Your task to perform on an android device: visit the assistant section in the google photos Image 0: 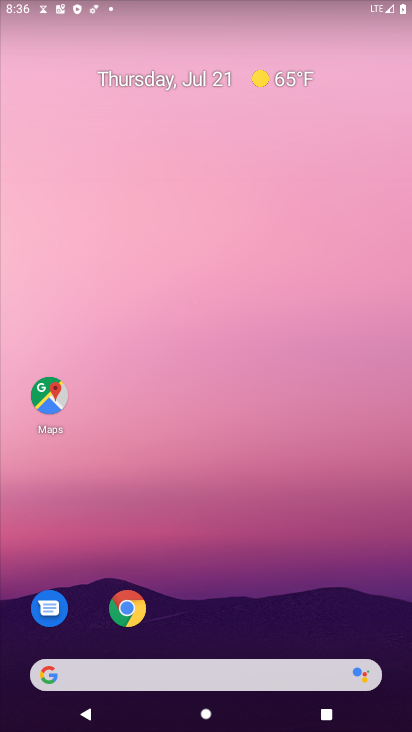
Step 0: drag from (167, 667) to (276, 188)
Your task to perform on an android device: visit the assistant section in the google photos Image 1: 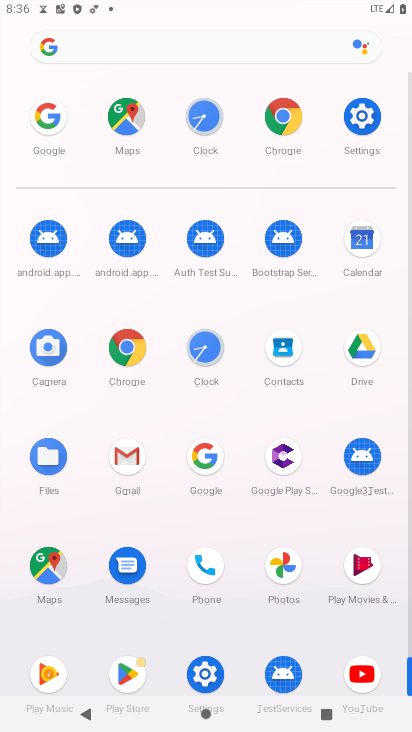
Step 1: click (284, 565)
Your task to perform on an android device: visit the assistant section in the google photos Image 2: 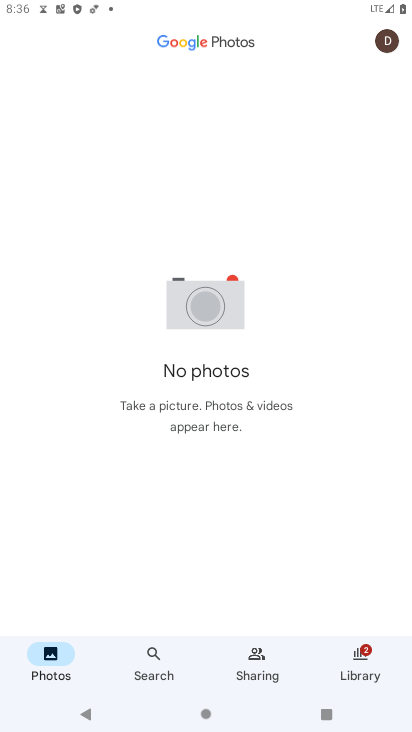
Step 2: click (156, 665)
Your task to perform on an android device: visit the assistant section in the google photos Image 3: 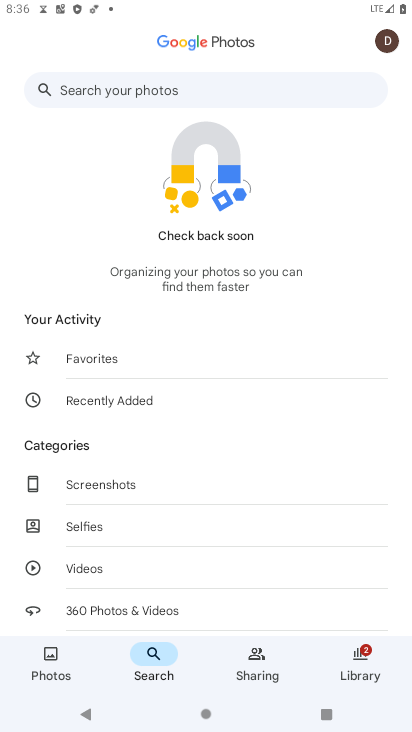
Step 3: click (262, 659)
Your task to perform on an android device: visit the assistant section in the google photos Image 4: 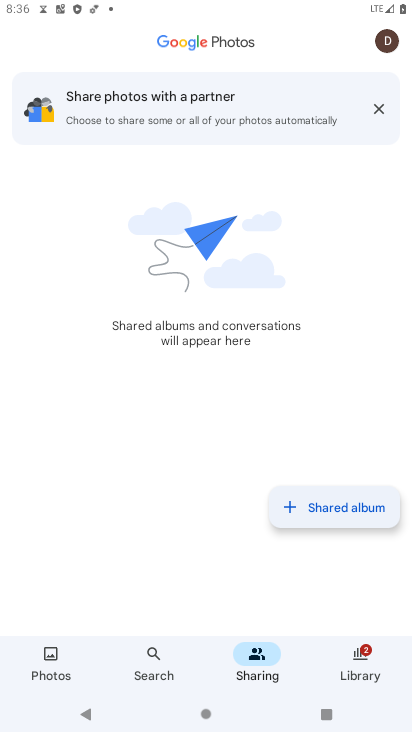
Step 4: click (159, 667)
Your task to perform on an android device: visit the assistant section in the google photos Image 5: 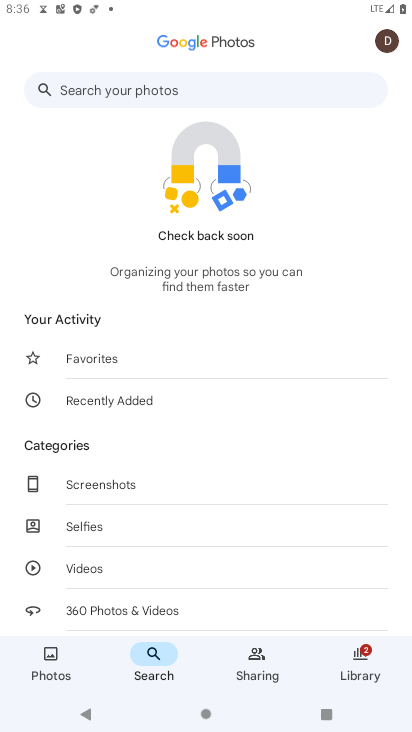
Step 5: click (57, 668)
Your task to perform on an android device: visit the assistant section in the google photos Image 6: 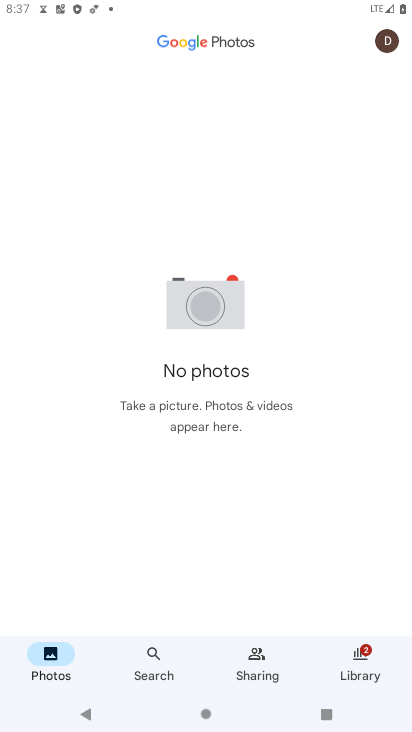
Step 6: click (361, 652)
Your task to perform on an android device: visit the assistant section in the google photos Image 7: 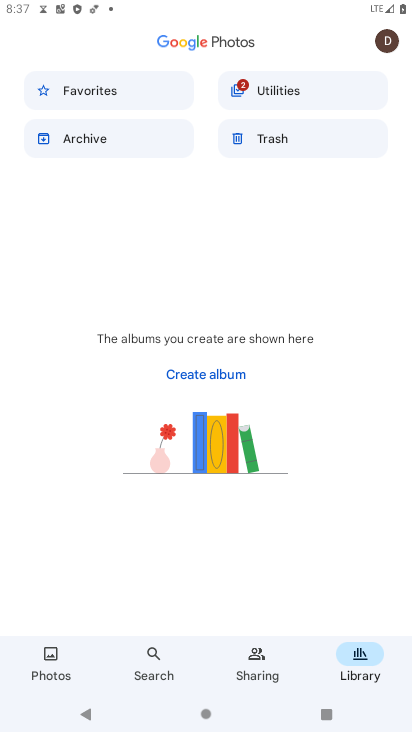
Step 7: click (94, 131)
Your task to perform on an android device: visit the assistant section in the google photos Image 8: 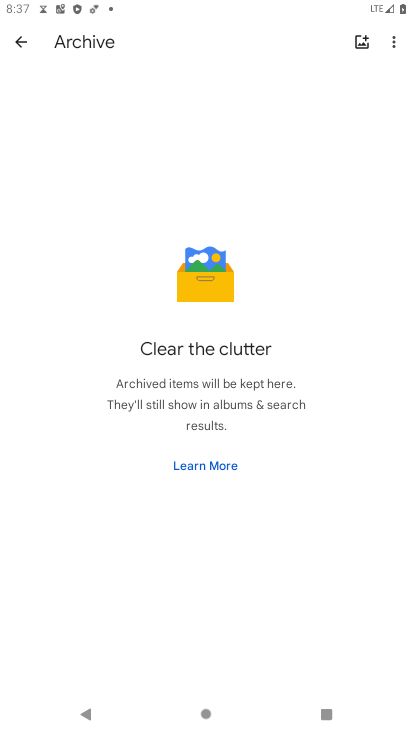
Step 8: click (66, 32)
Your task to perform on an android device: visit the assistant section in the google photos Image 9: 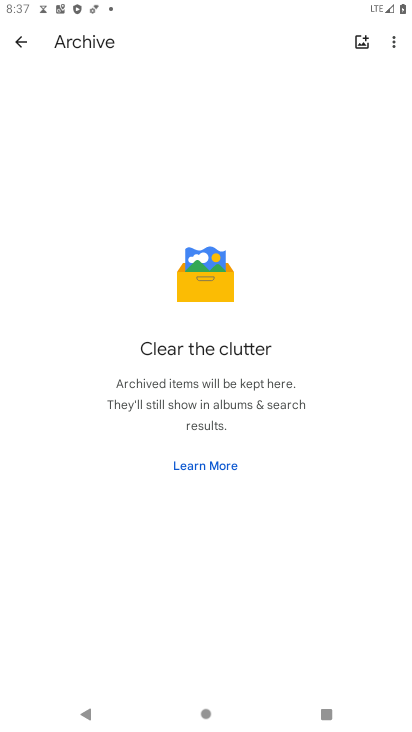
Step 9: click (19, 36)
Your task to perform on an android device: visit the assistant section in the google photos Image 10: 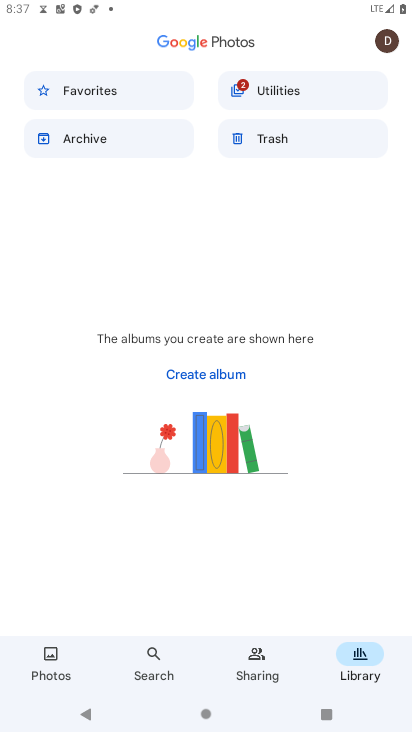
Step 10: click (205, 442)
Your task to perform on an android device: visit the assistant section in the google photos Image 11: 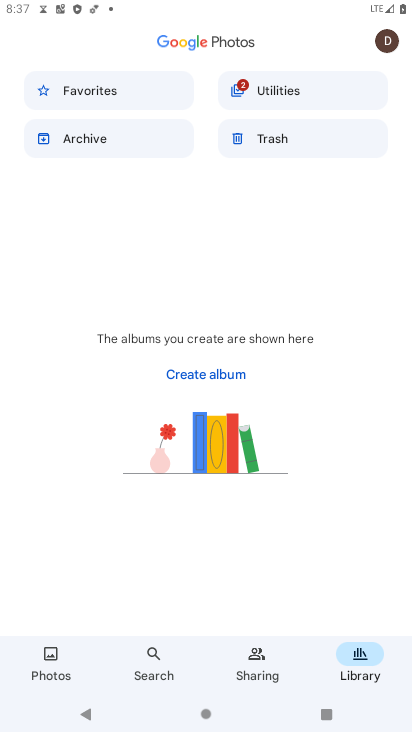
Step 11: click (205, 442)
Your task to perform on an android device: visit the assistant section in the google photos Image 12: 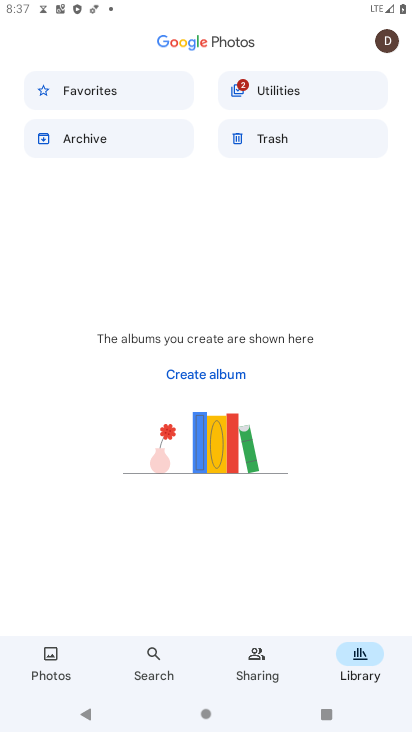
Step 12: click (298, 88)
Your task to perform on an android device: visit the assistant section in the google photos Image 13: 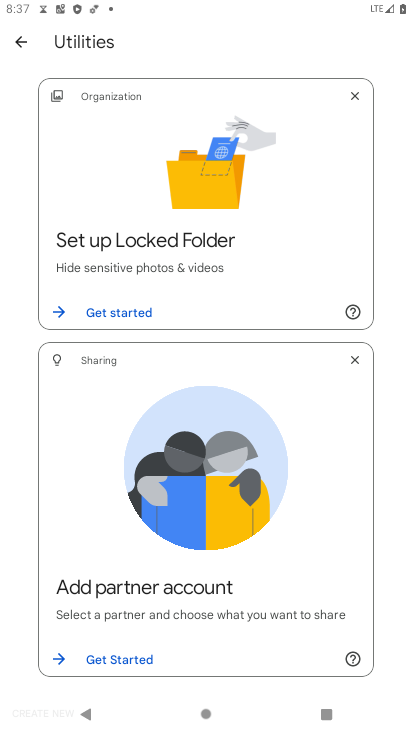
Step 13: click (19, 32)
Your task to perform on an android device: visit the assistant section in the google photos Image 14: 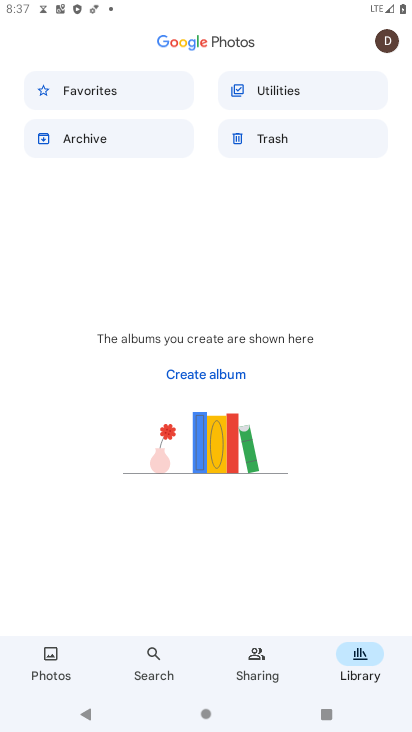
Step 14: click (319, 87)
Your task to perform on an android device: visit the assistant section in the google photos Image 15: 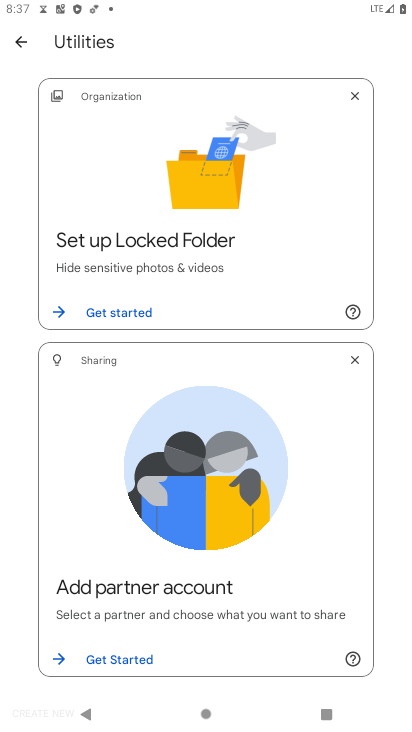
Step 15: click (13, 41)
Your task to perform on an android device: visit the assistant section in the google photos Image 16: 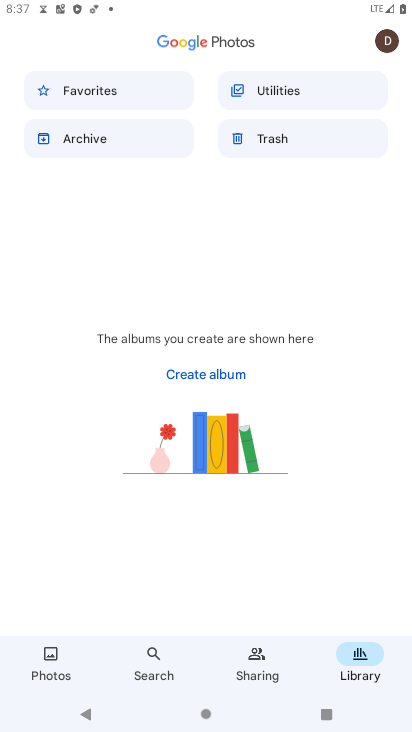
Step 16: click (166, 134)
Your task to perform on an android device: visit the assistant section in the google photos Image 17: 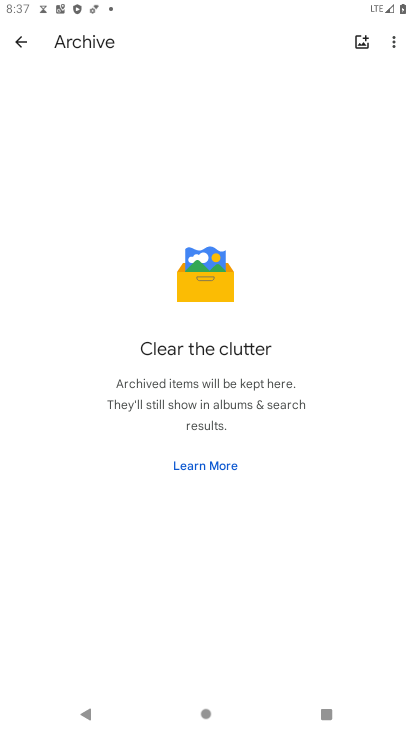
Step 17: click (186, 267)
Your task to perform on an android device: visit the assistant section in the google photos Image 18: 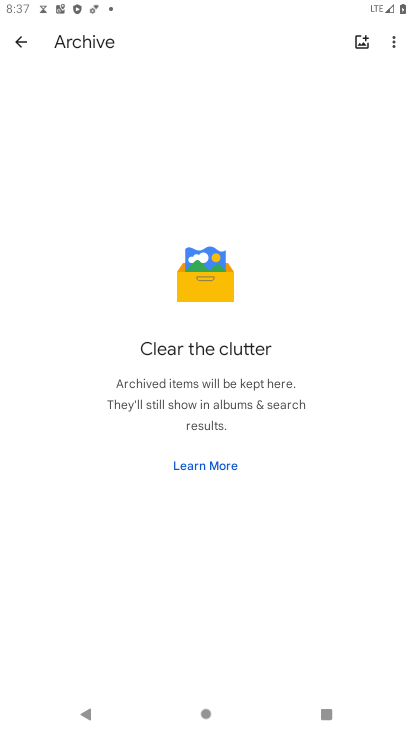
Step 18: click (14, 36)
Your task to perform on an android device: visit the assistant section in the google photos Image 19: 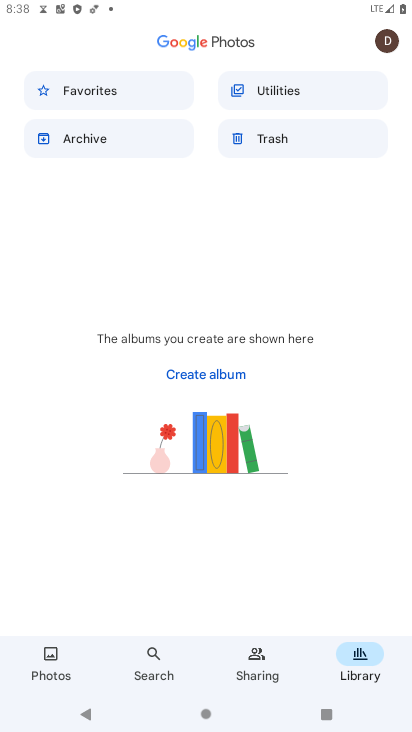
Step 19: click (315, 86)
Your task to perform on an android device: visit the assistant section in the google photos Image 20: 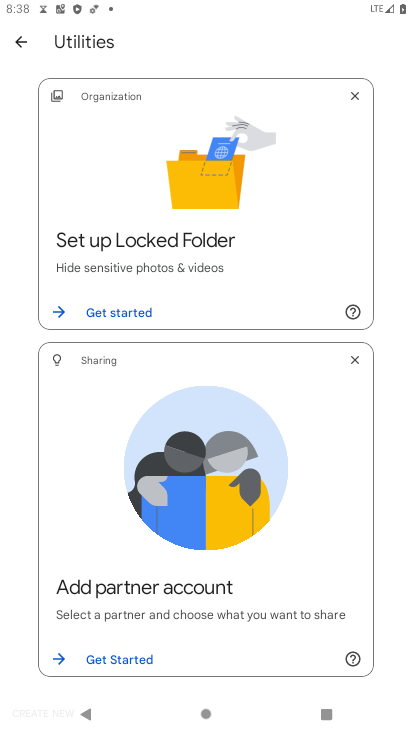
Step 20: click (24, 33)
Your task to perform on an android device: visit the assistant section in the google photos Image 21: 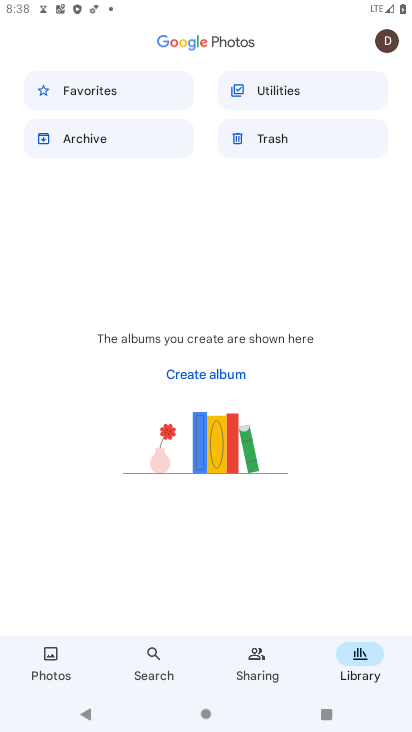
Step 21: task complete